Your task to perform on an android device: What is the recent news? Image 0: 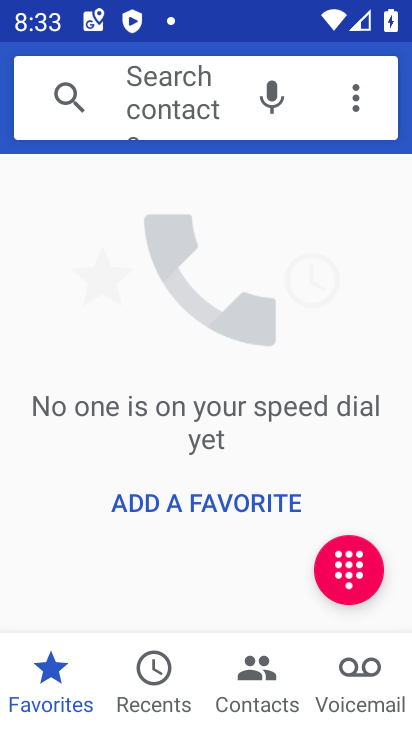
Step 0: press home button
Your task to perform on an android device: What is the recent news? Image 1: 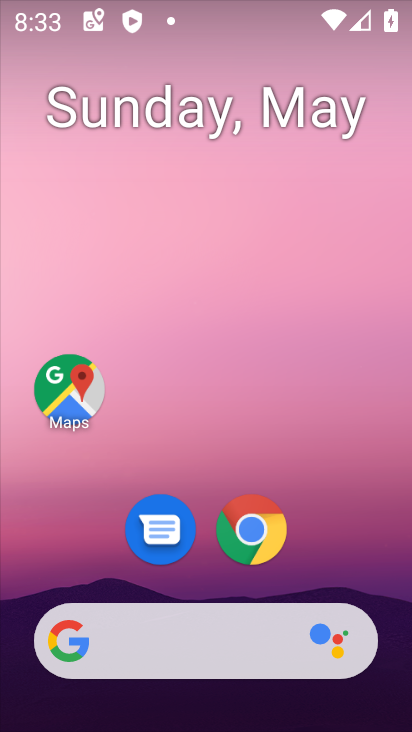
Step 1: click (125, 641)
Your task to perform on an android device: What is the recent news? Image 2: 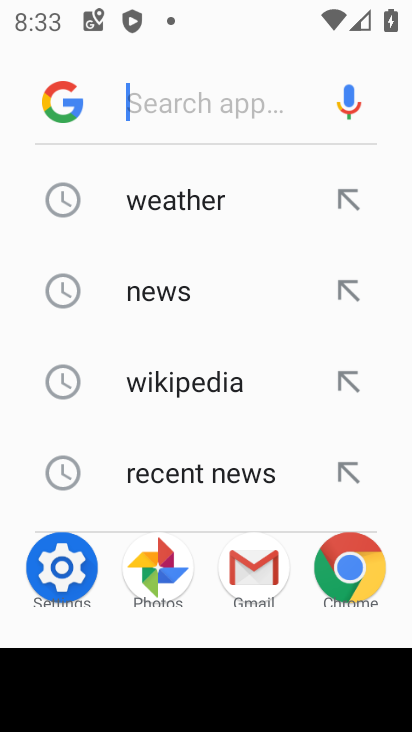
Step 2: click (178, 482)
Your task to perform on an android device: What is the recent news? Image 3: 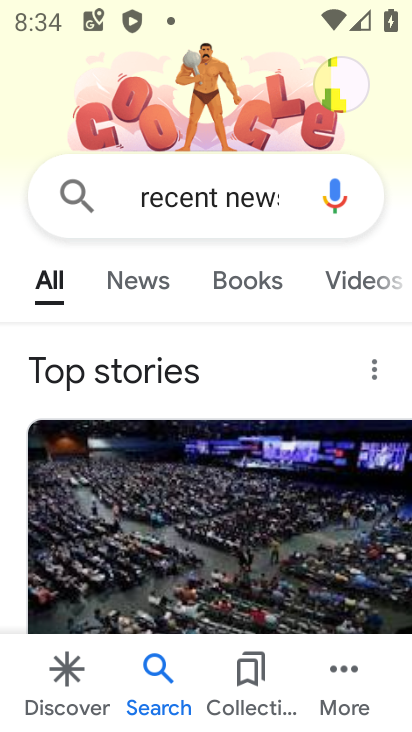
Step 3: click (129, 283)
Your task to perform on an android device: What is the recent news? Image 4: 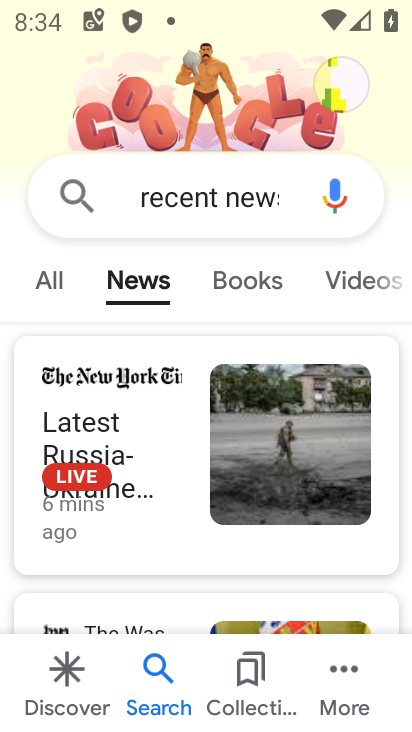
Step 4: click (111, 428)
Your task to perform on an android device: What is the recent news? Image 5: 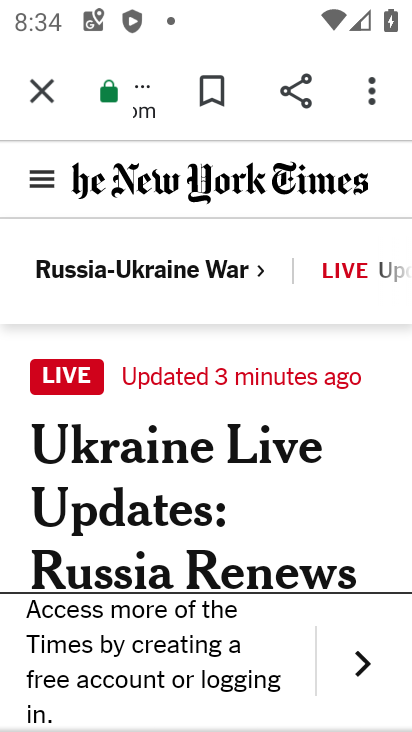
Step 5: task complete